Your task to perform on an android device: allow notifications from all sites in the chrome app Image 0: 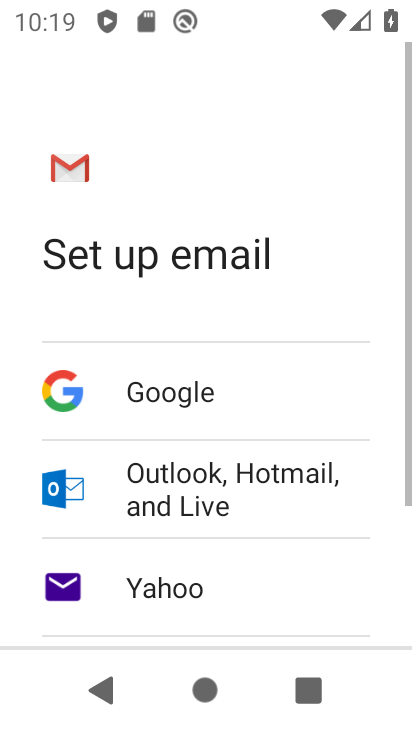
Step 0: press back button
Your task to perform on an android device: allow notifications from all sites in the chrome app Image 1: 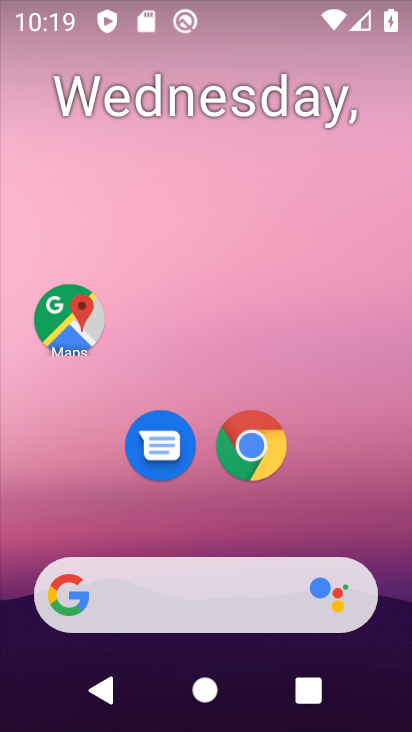
Step 1: click (269, 436)
Your task to perform on an android device: allow notifications from all sites in the chrome app Image 2: 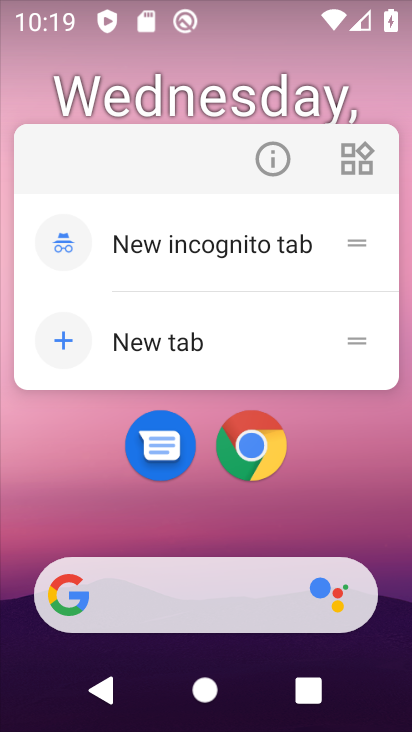
Step 2: click (271, 436)
Your task to perform on an android device: allow notifications from all sites in the chrome app Image 3: 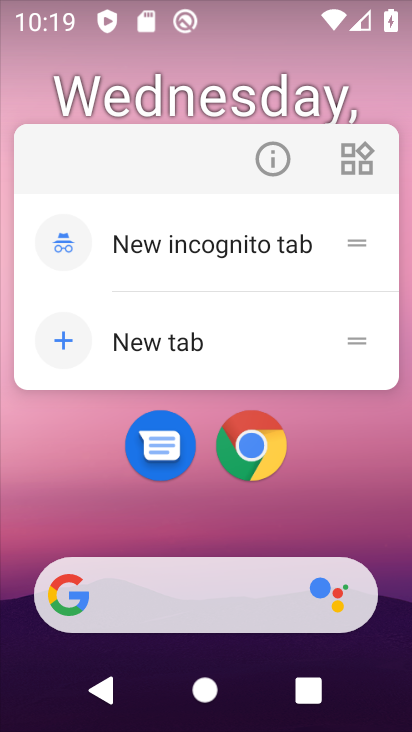
Step 3: click (254, 439)
Your task to perform on an android device: allow notifications from all sites in the chrome app Image 4: 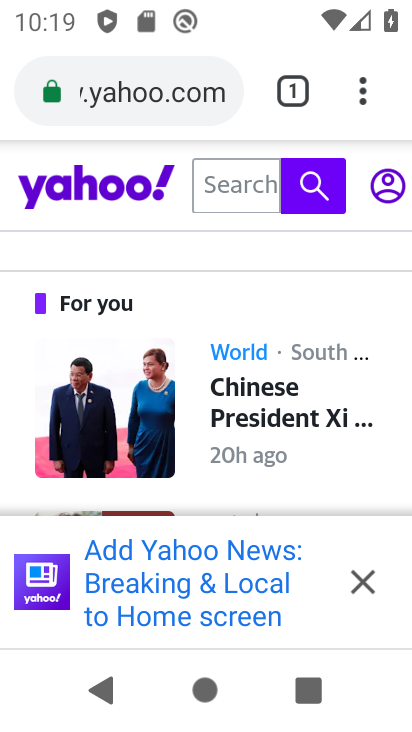
Step 4: click (359, 86)
Your task to perform on an android device: allow notifications from all sites in the chrome app Image 5: 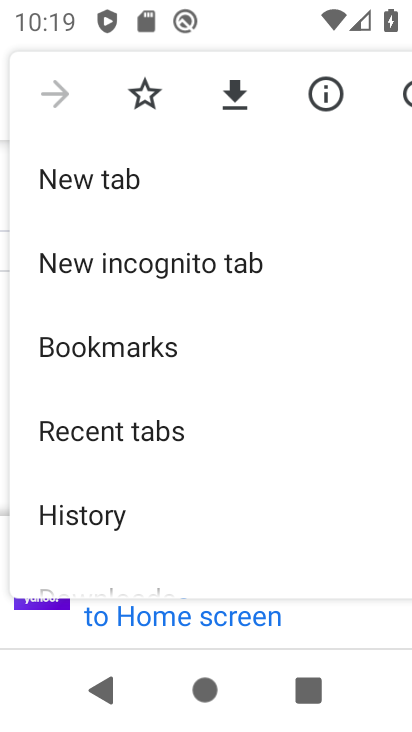
Step 5: drag from (154, 533) to (279, 28)
Your task to perform on an android device: allow notifications from all sites in the chrome app Image 6: 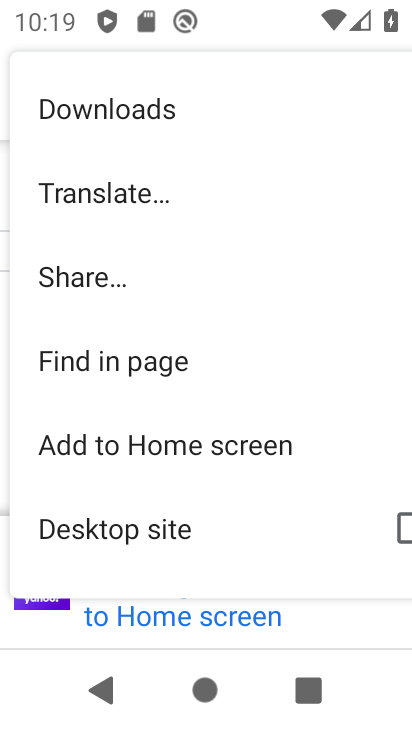
Step 6: drag from (136, 532) to (256, 47)
Your task to perform on an android device: allow notifications from all sites in the chrome app Image 7: 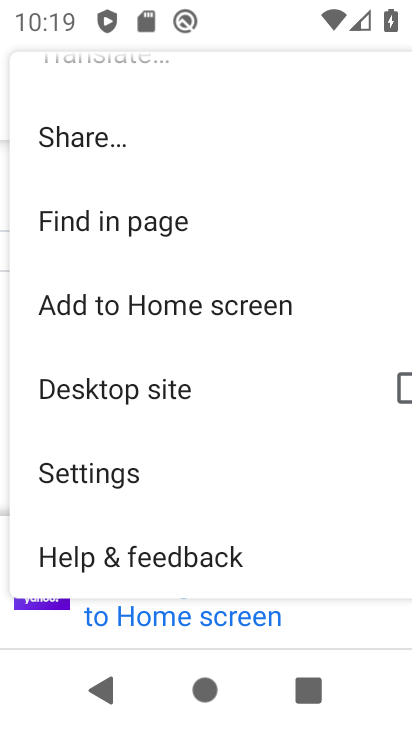
Step 7: click (91, 468)
Your task to perform on an android device: allow notifications from all sites in the chrome app Image 8: 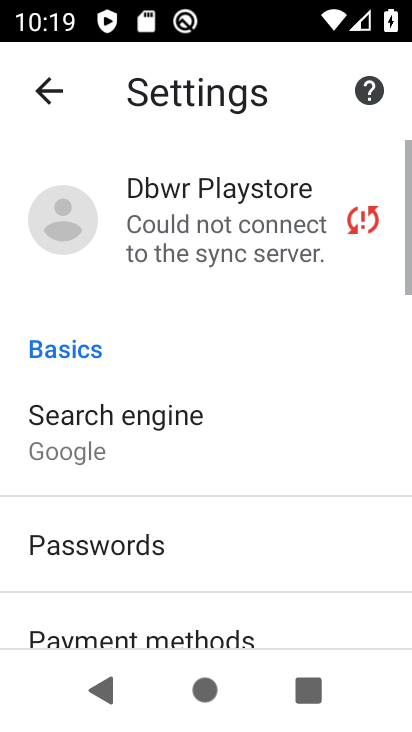
Step 8: drag from (207, 563) to (304, 89)
Your task to perform on an android device: allow notifications from all sites in the chrome app Image 9: 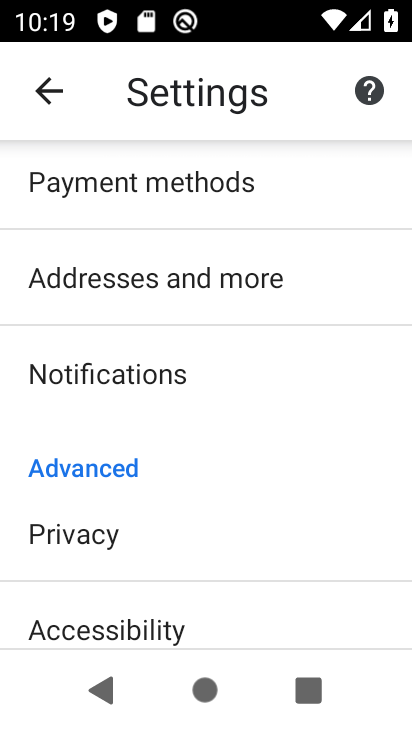
Step 9: click (159, 382)
Your task to perform on an android device: allow notifications from all sites in the chrome app Image 10: 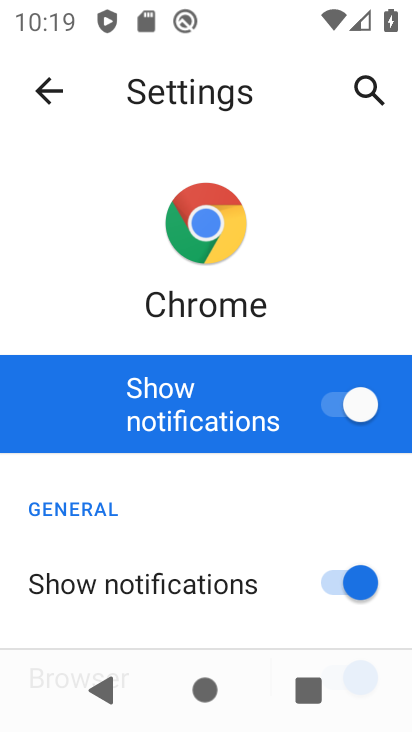
Step 10: task complete